Your task to perform on an android device: Open settings on Google Maps Image 0: 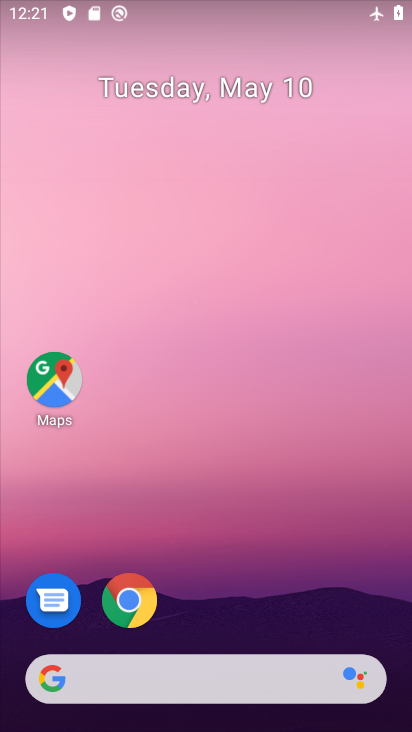
Step 0: drag from (210, 520) to (208, 300)
Your task to perform on an android device: Open settings on Google Maps Image 1: 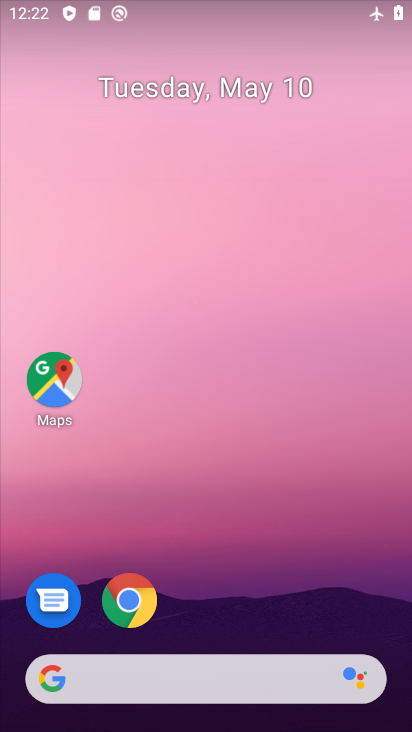
Step 1: click (62, 395)
Your task to perform on an android device: Open settings on Google Maps Image 2: 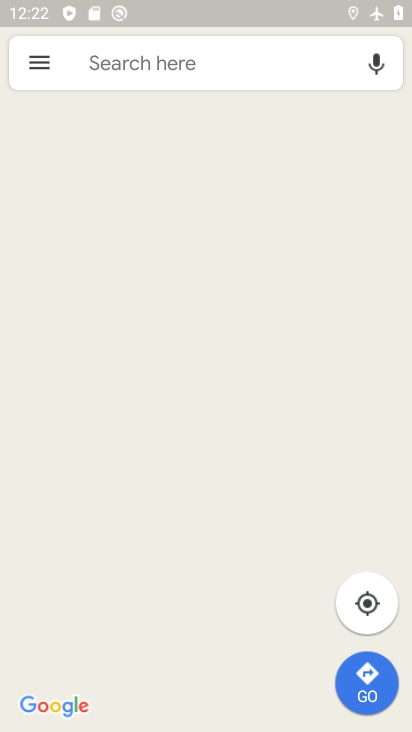
Step 2: click (24, 50)
Your task to perform on an android device: Open settings on Google Maps Image 3: 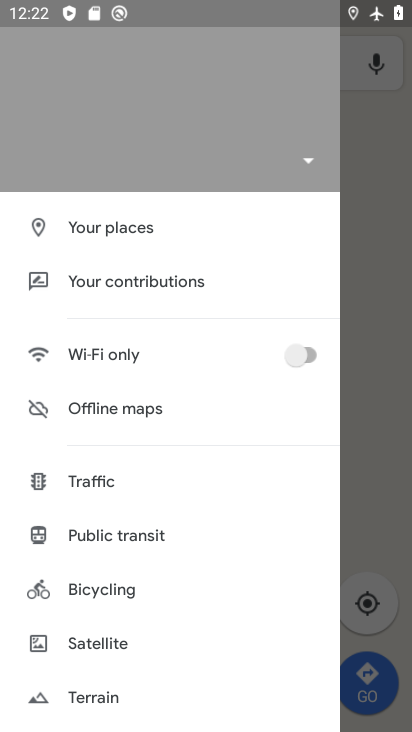
Step 3: drag from (108, 583) to (219, 90)
Your task to perform on an android device: Open settings on Google Maps Image 4: 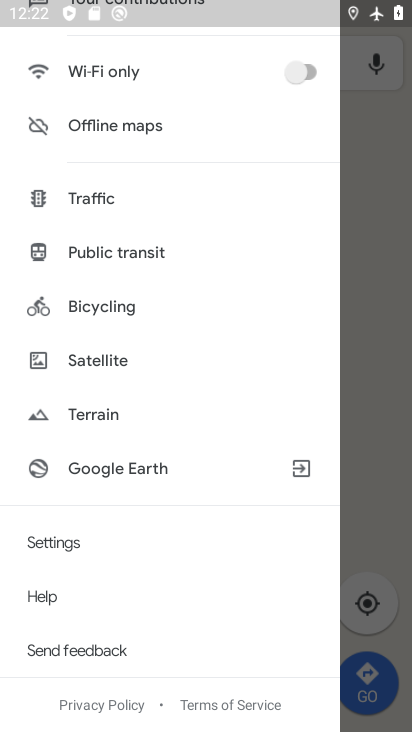
Step 4: click (57, 549)
Your task to perform on an android device: Open settings on Google Maps Image 5: 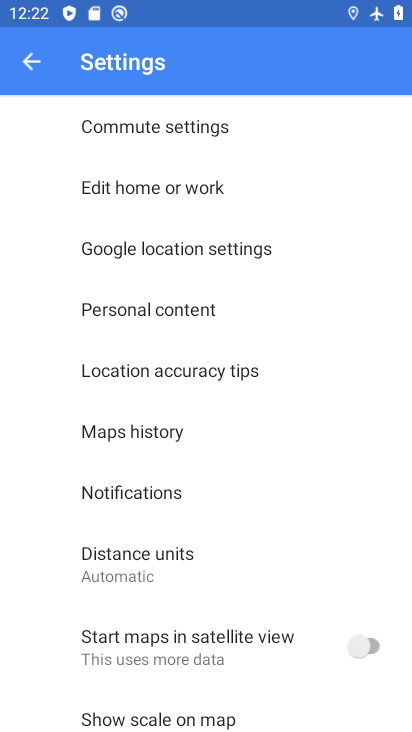
Step 5: task complete